Your task to perform on an android device: Open eBay Image 0: 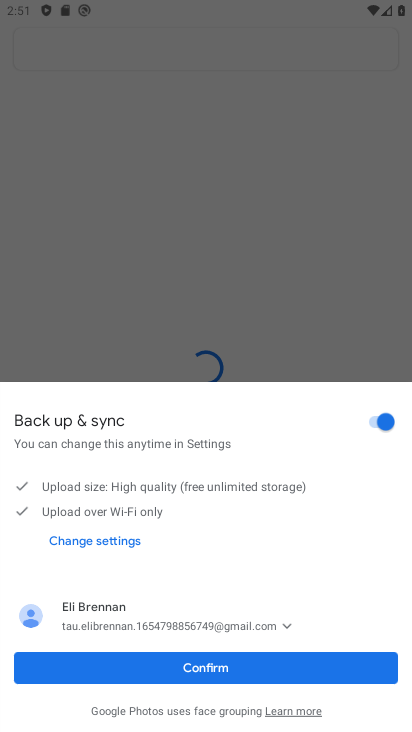
Step 0: press home button
Your task to perform on an android device: Open eBay Image 1: 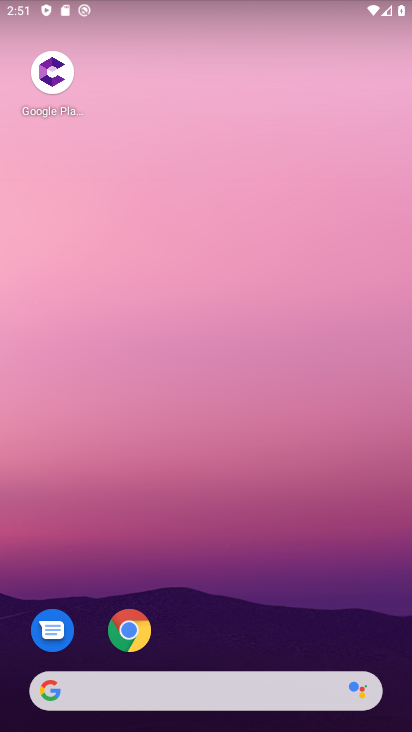
Step 1: click (117, 634)
Your task to perform on an android device: Open eBay Image 2: 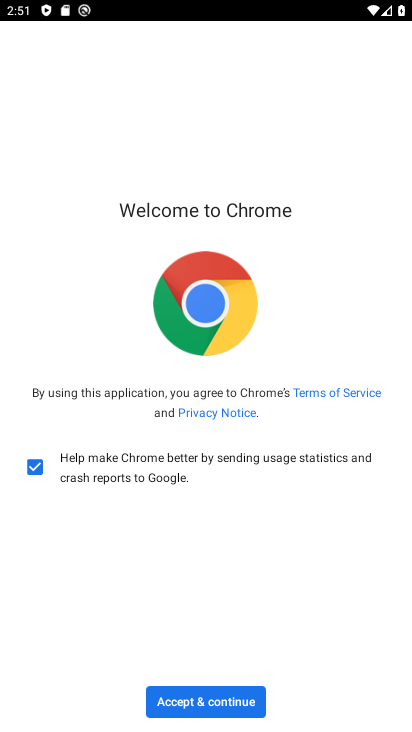
Step 2: click (203, 699)
Your task to perform on an android device: Open eBay Image 3: 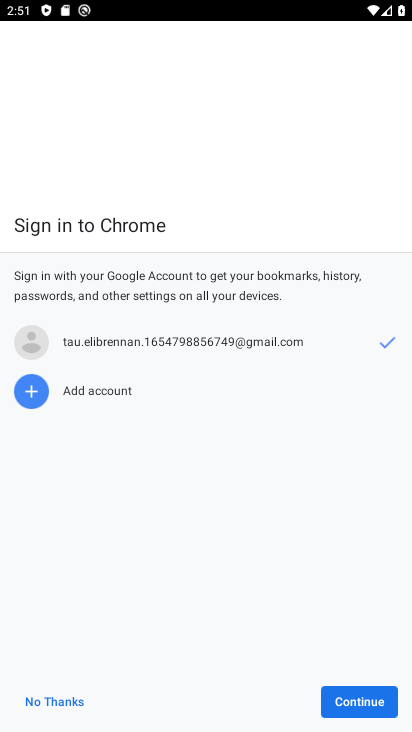
Step 3: click (344, 697)
Your task to perform on an android device: Open eBay Image 4: 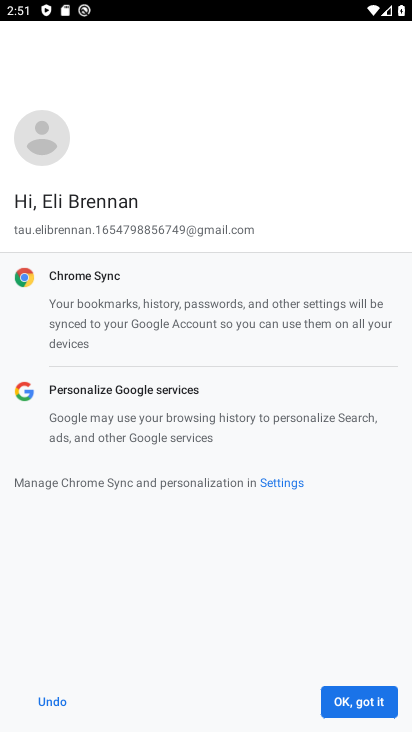
Step 4: click (344, 697)
Your task to perform on an android device: Open eBay Image 5: 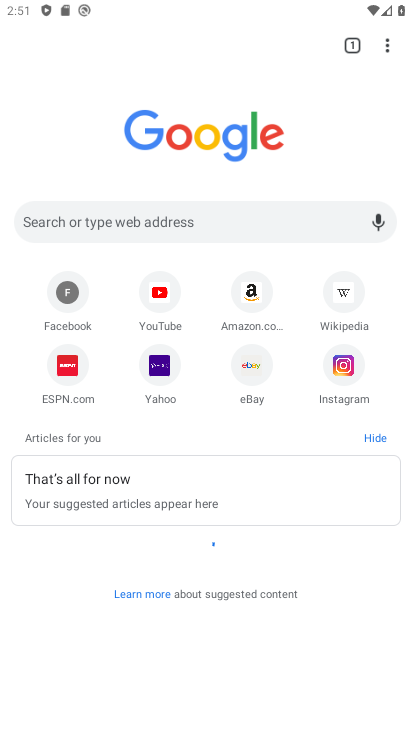
Step 5: click (243, 372)
Your task to perform on an android device: Open eBay Image 6: 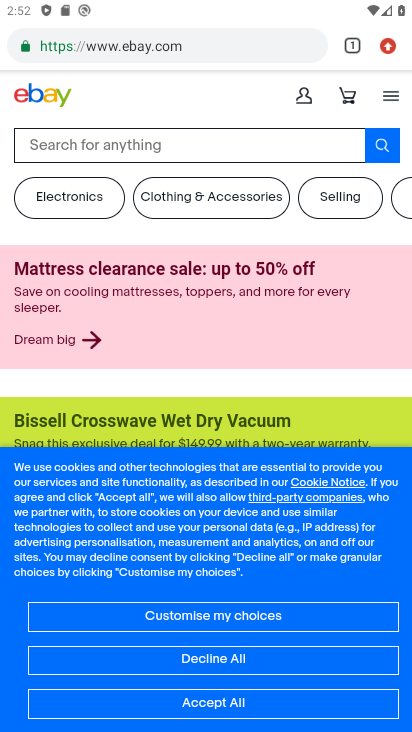
Step 6: task complete